Your task to perform on an android device: Open accessibility settings Image 0: 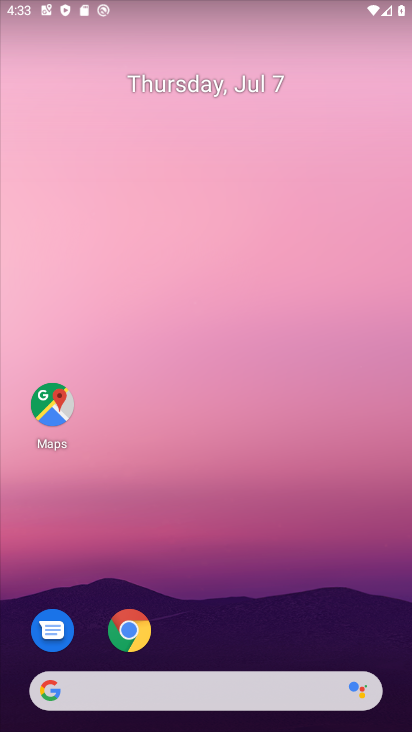
Step 0: drag from (244, 154) to (223, 534)
Your task to perform on an android device: Open accessibility settings Image 1: 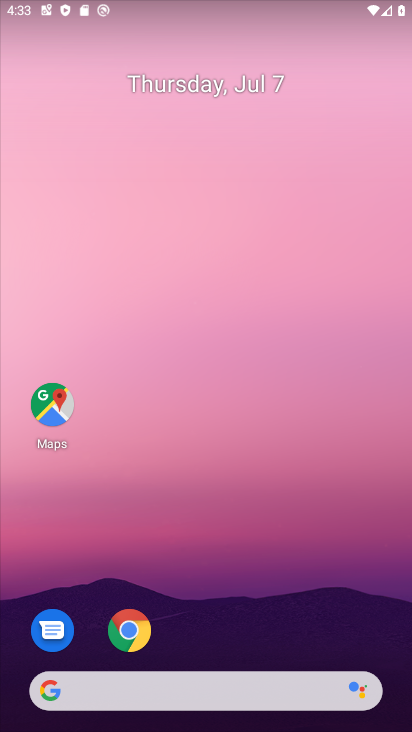
Step 1: drag from (147, 4) to (209, 573)
Your task to perform on an android device: Open accessibility settings Image 2: 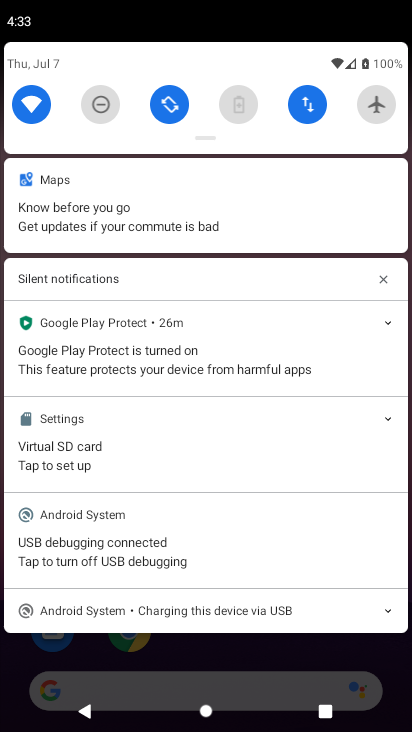
Step 2: drag from (215, 59) to (268, 721)
Your task to perform on an android device: Open accessibility settings Image 3: 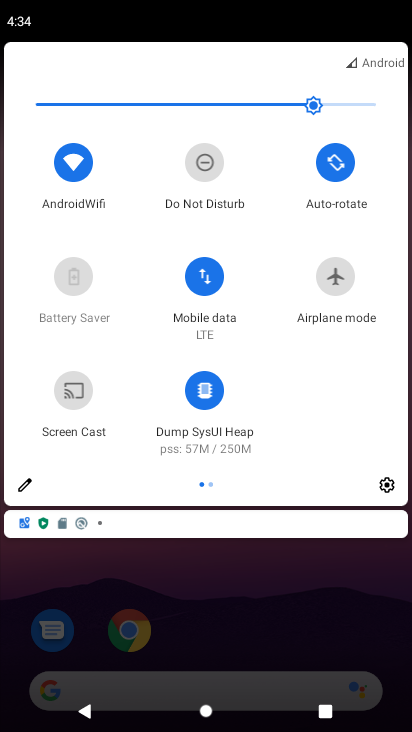
Step 3: click (392, 486)
Your task to perform on an android device: Open accessibility settings Image 4: 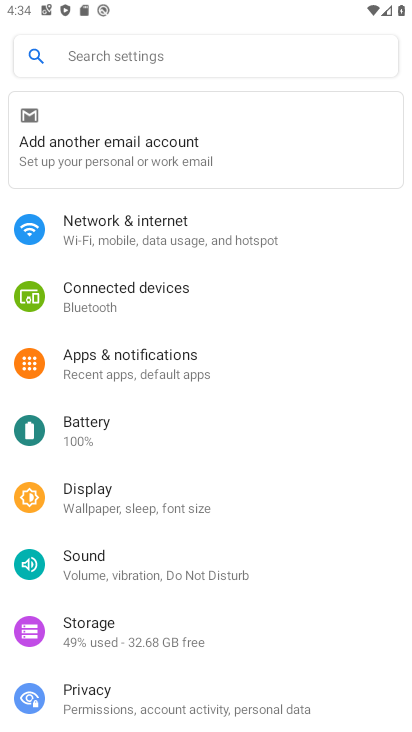
Step 4: drag from (192, 656) to (219, 289)
Your task to perform on an android device: Open accessibility settings Image 5: 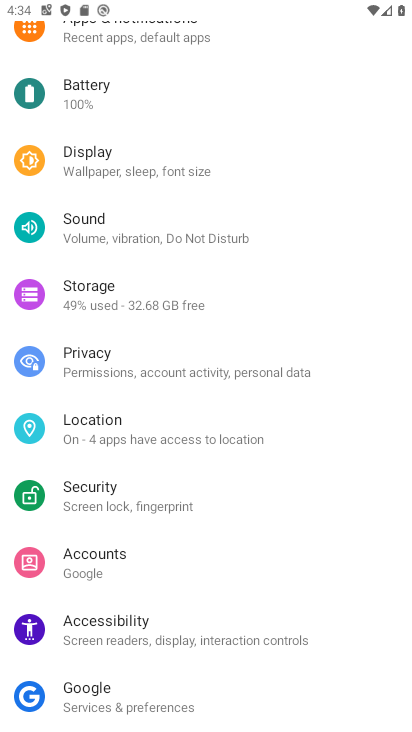
Step 5: click (81, 620)
Your task to perform on an android device: Open accessibility settings Image 6: 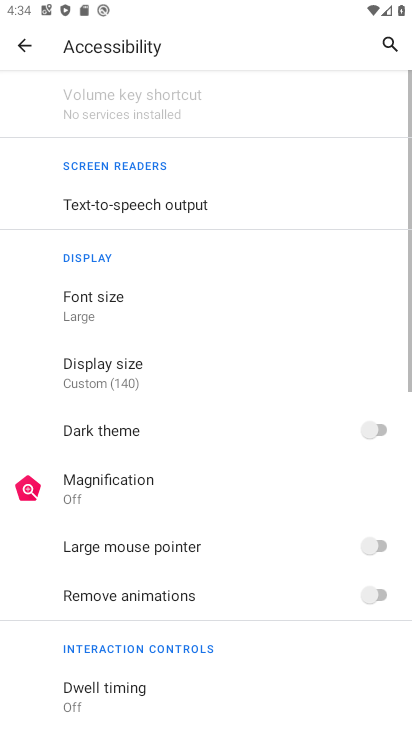
Step 6: task complete